Your task to perform on an android device: turn off airplane mode Image 0: 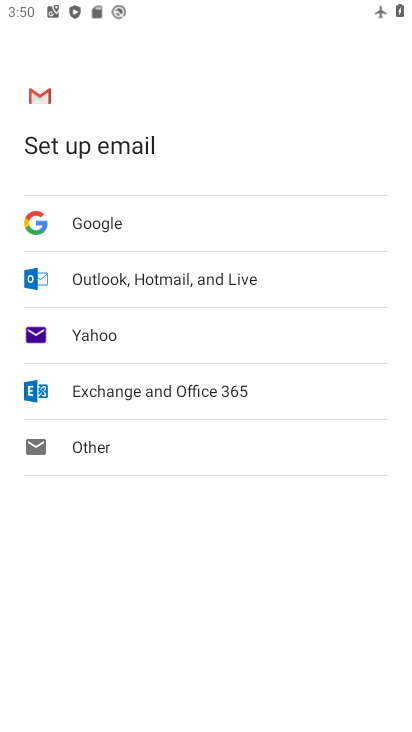
Step 0: press home button
Your task to perform on an android device: turn off airplane mode Image 1: 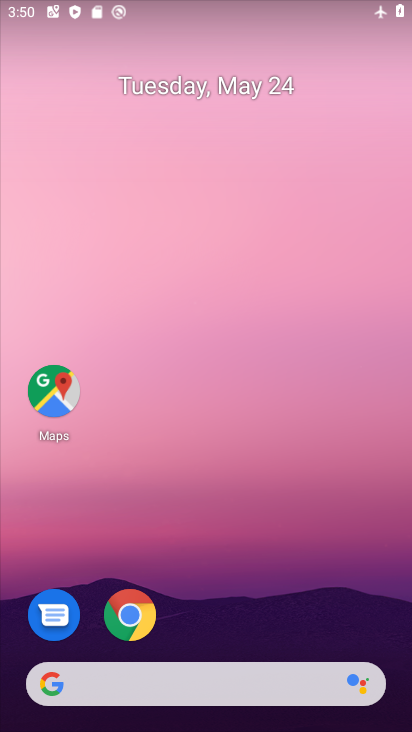
Step 1: drag from (215, 724) to (220, 106)
Your task to perform on an android device: turn off airplane mode Image 2: 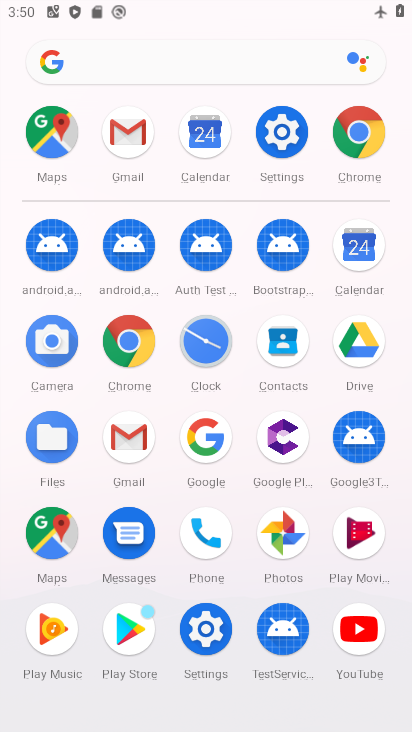
Step 2: click (284, 143)
Your task to perform on an android device: turn off airplane mode Image 3: 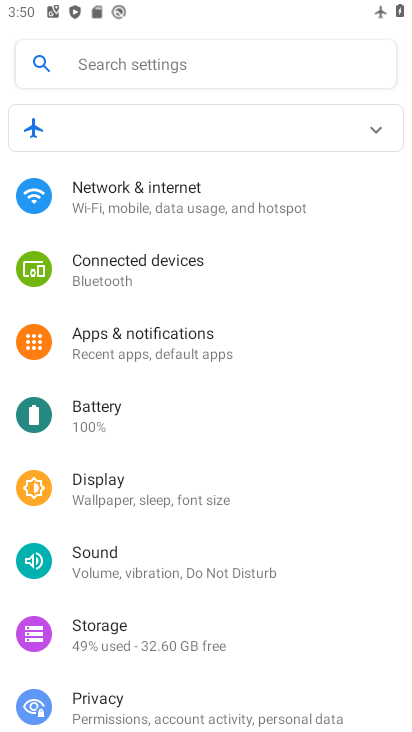
Step 3: click (146, 196)
Your task to perform on an android device: turn off airplane mode Image 4: 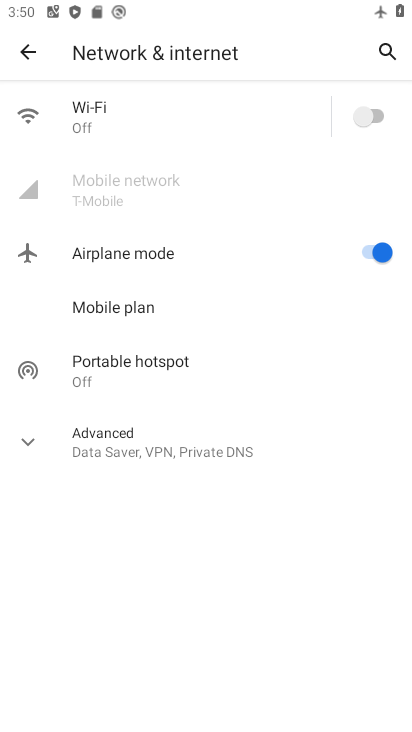
Step 4: click (379, 252)
Your task to perform on an android device: turn off airplane mode Image 5: 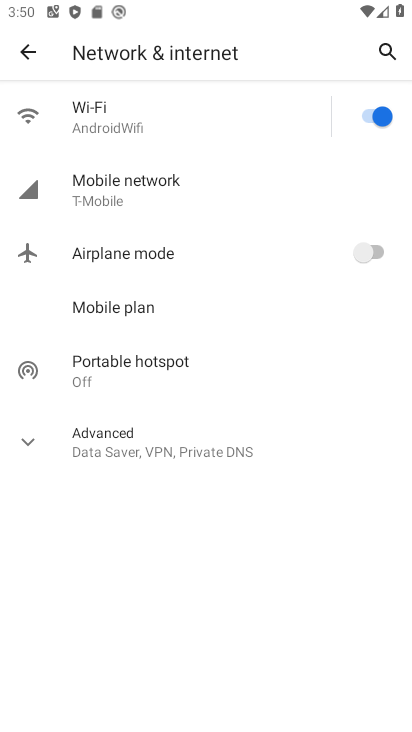
Step 5: task complete